Your task to perform on an android device: Open sound settings Image 0: 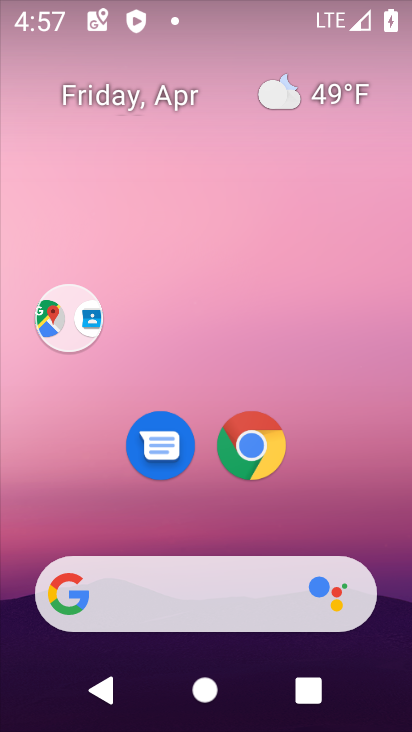
Step 0: drag from (329, 413) to (333, 88)
Your task to perform on an android device: Open sound settings Image 1: 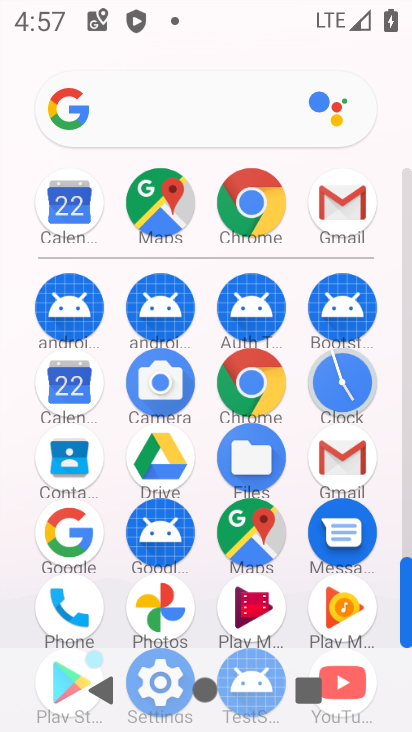
Step 1: drag from (201, 572) to (224, 287)
Your task to perform on an android device: Open sound settings Image 2: 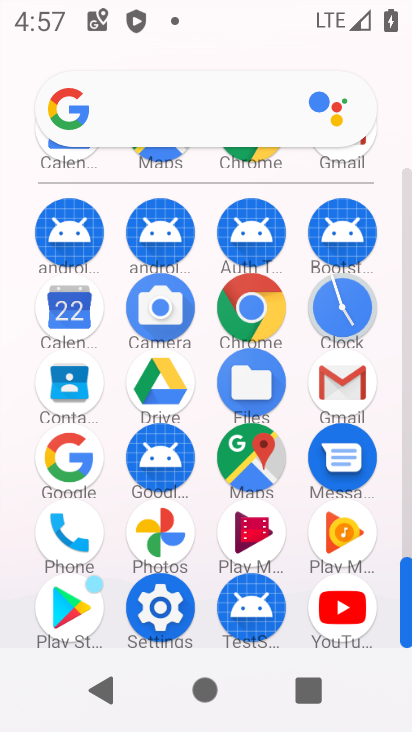
Step 2: click (159, 612)
Your task to perform on an android device: Open sound settings Image 3: 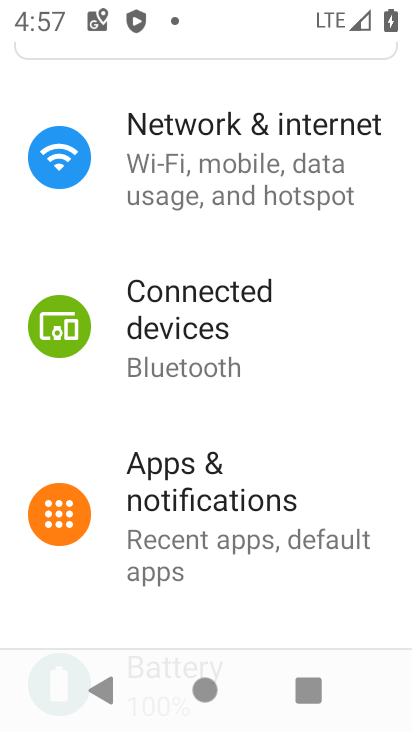
Step 3: drag from (299, 427) to (334, 178)
Your task to perform on an android device: Open sound settings Image 4: 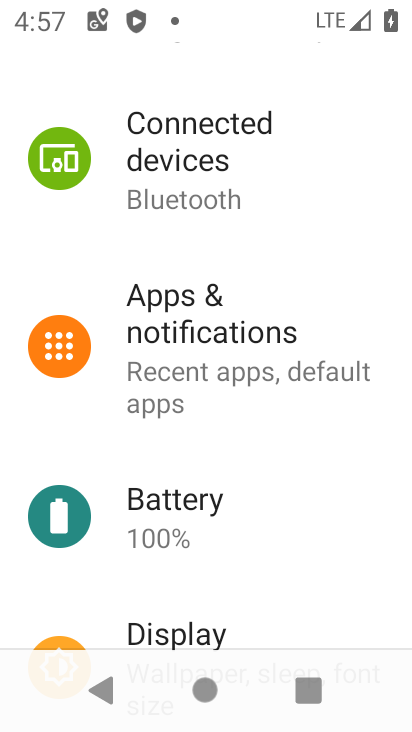
Step 4: drag from (249, 528) to (311, 239)
Your task to perform on an android device: Open sound settings Image 5: 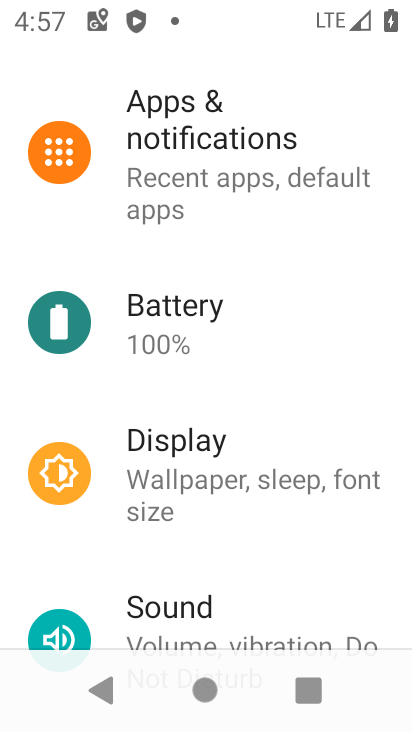
Step 5: drag from (248, 586) to (293, 293)
Your task to perform on an android device: Open sound settings Image 6: 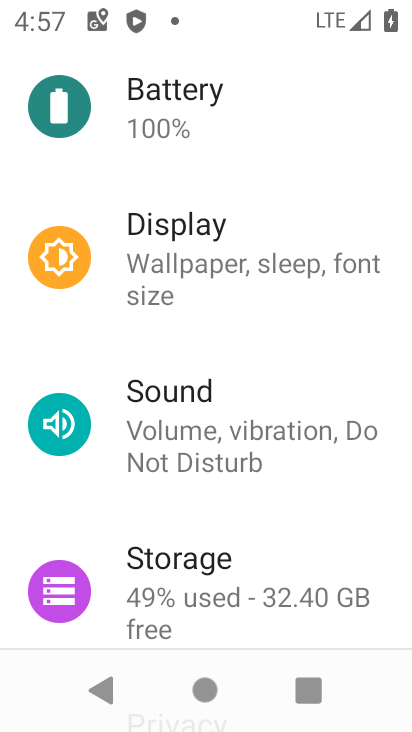
Step 6: click (186, 428)
Your task to perform on an android device: Open sound settings Image 7: 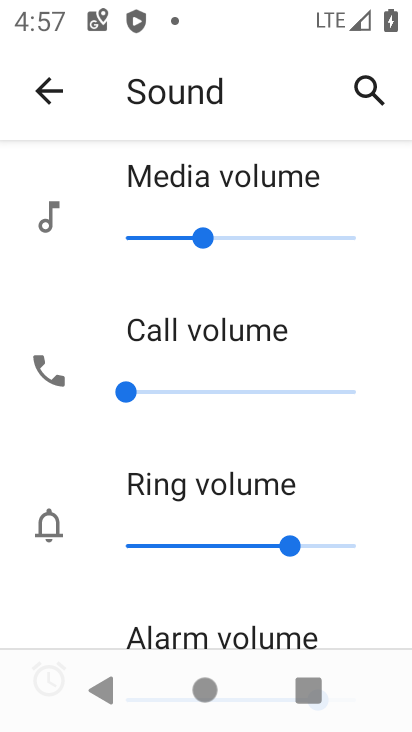
Step 7: task complete